Your task to perform on an android device: Open Google Chrome and open the bookmarks view Image 0: 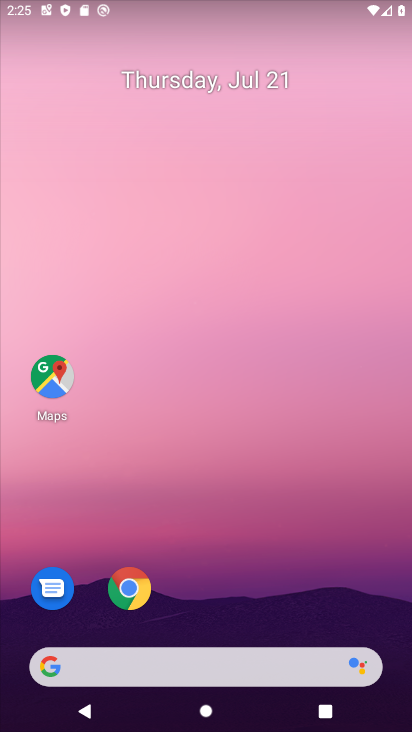
Step 0: drag from (196, 594) to (49, 7)
Your task to perform on an android device: Open Google Chrome and open the bookmarks view Image 1: 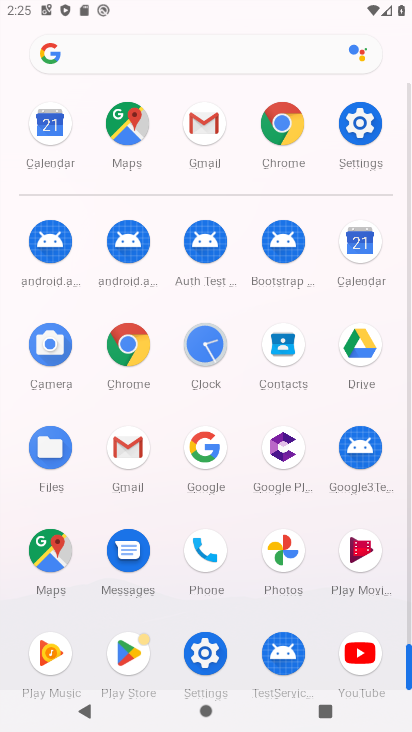
Step 1: click (275, 119)
Your task to perform on an android device: Open Google Chrome and open the bookmarks view Image 2: 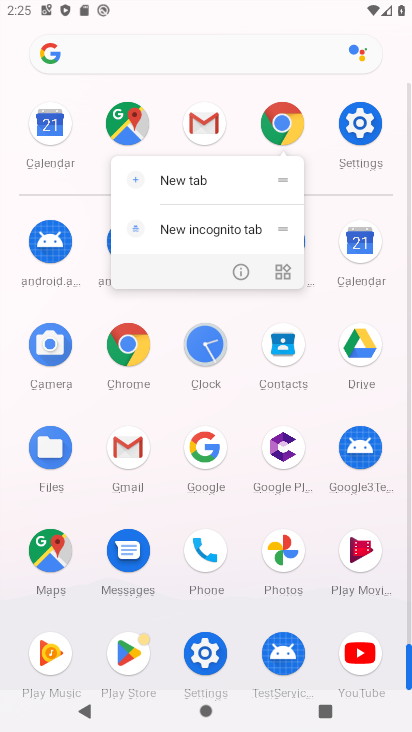
Step 2: click (236, 270)
Your task to perform on an android device: Open Google Chrome and open the bookmarks view Image 3: 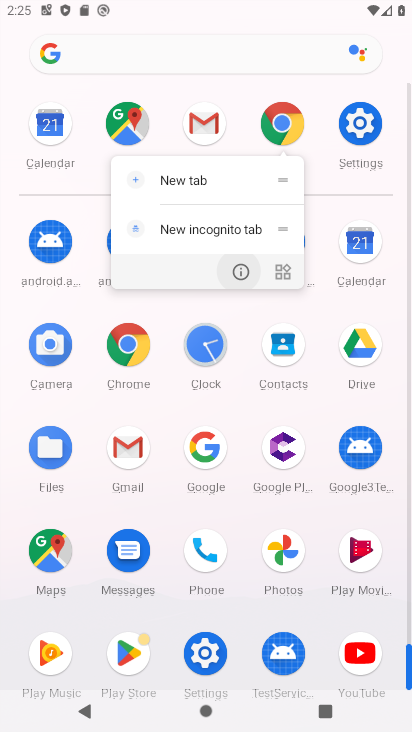
Step 3: click (236, 270)
Your task to perform on an android device: Open Google Chrome and open the bookmarks view Image 4: 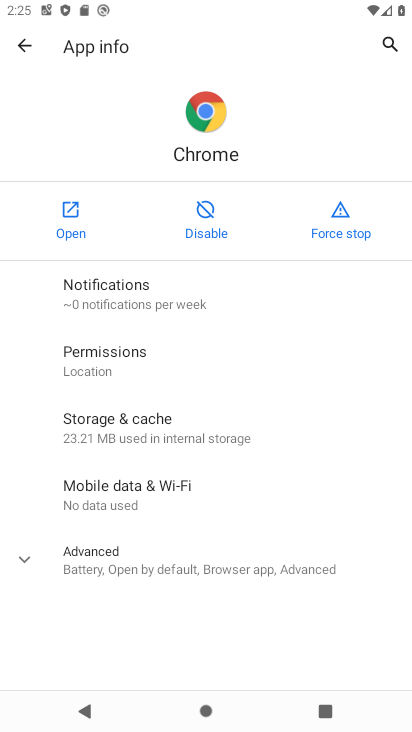
Step 4: click (74, 224)
Your task to perform on an android device: Open Google Chrome and open the bookmarks view Image 5: 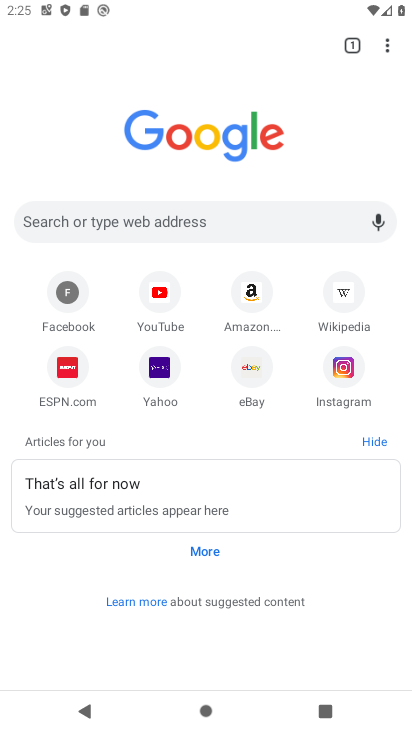
Step 5: task complete